Your task to perform on an android device: Set the phone to "Do not disturb". Image 0: 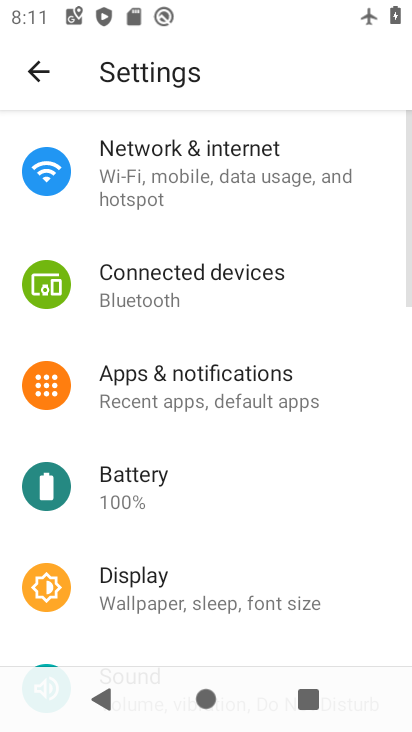
Step 0: press home button
Your task to perform on an android device: Set the phone to "Do not disturb". Image 1: 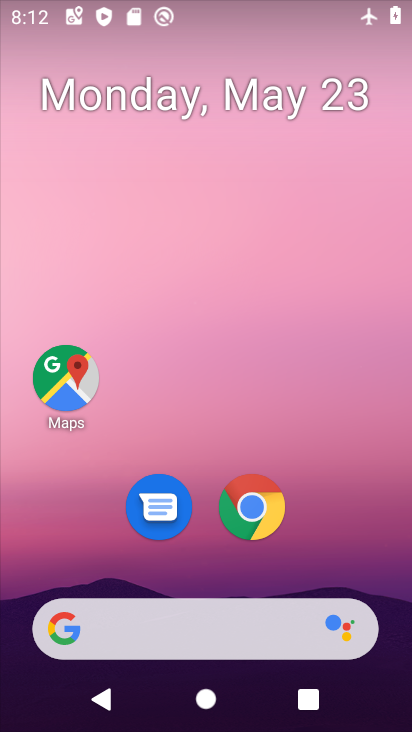
Step 1: drag from (377, 502) to (326, 203)
Your task to perform on an android device: Set the phone to "Do not disturb". Image 2: 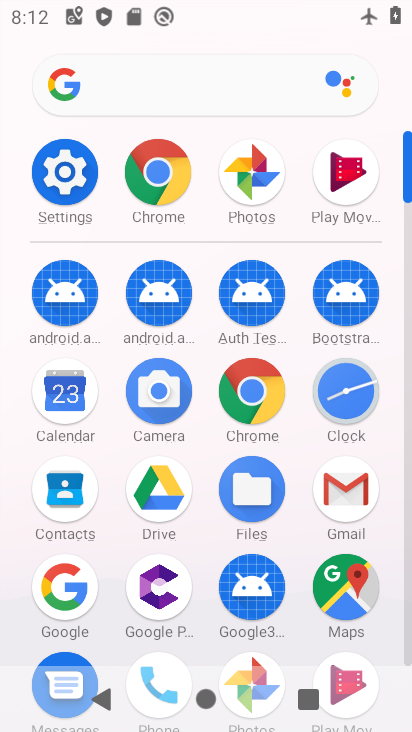
Step 2: click (48, 178)
Your task to perform on an android device: Set the phone to "Do not disturb". Image 3: 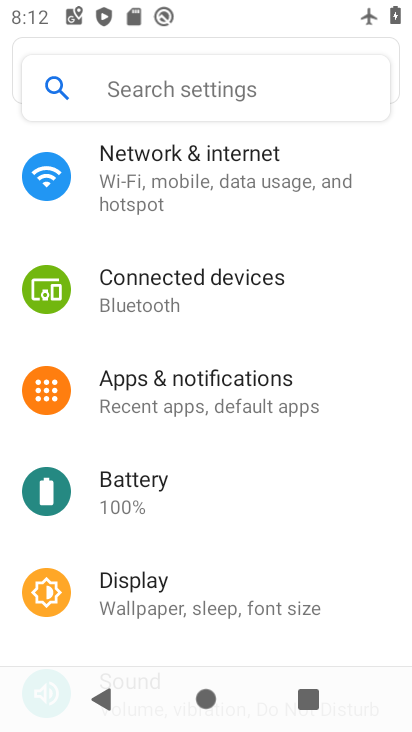
Step 3: drag from (232, 477) to (247, 195)
Your task to perform on an android device: Set the phone to "Do not disturb". Image 4: 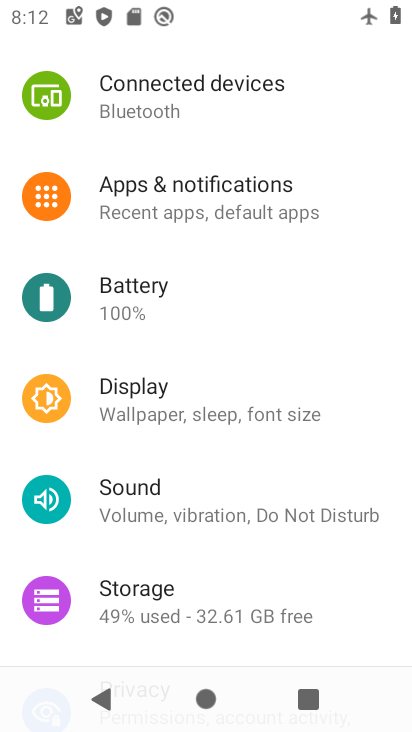
Step 4: click (257, 536)
Your task to perform on an android device: Set the phone to "Do not disturb". Image 5: 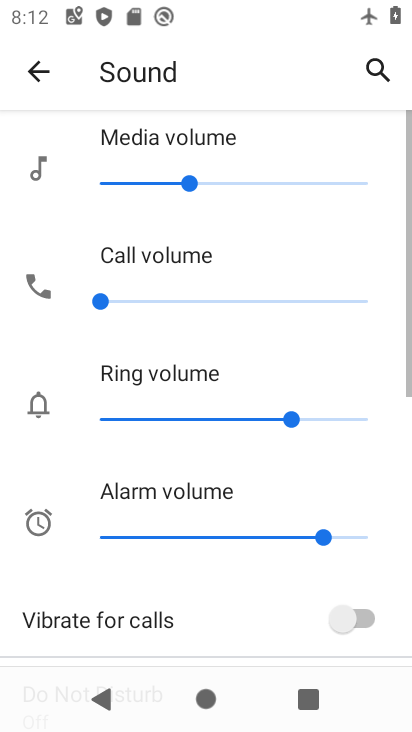
Step 5: drag from (239, 581) to (224, 229)
Your task to perform on an android device: Set the phone to "Do not disturb". Image 6: 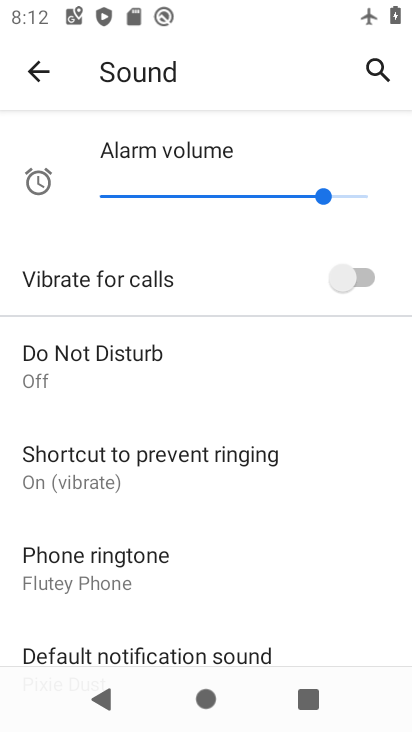
Step 6: click (102, 363)
Your task to perform on an android device: Set the phone to "Do not disturb". Image 7: 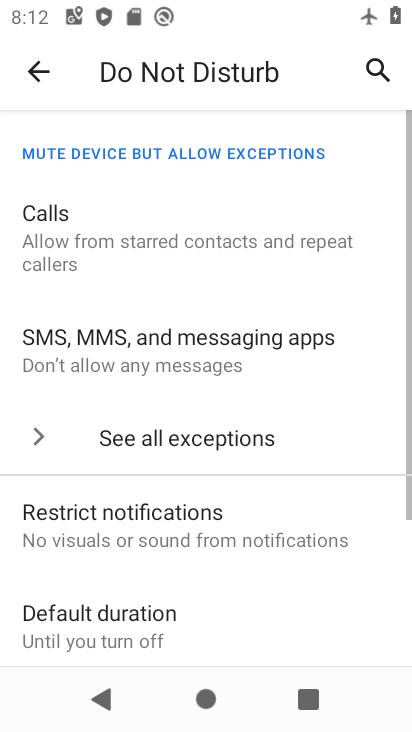
Step 7: drag from (195, 647) to (243, 254)
Your task to perform on an android device: Set the phone to "Do not disturb". Image 8: 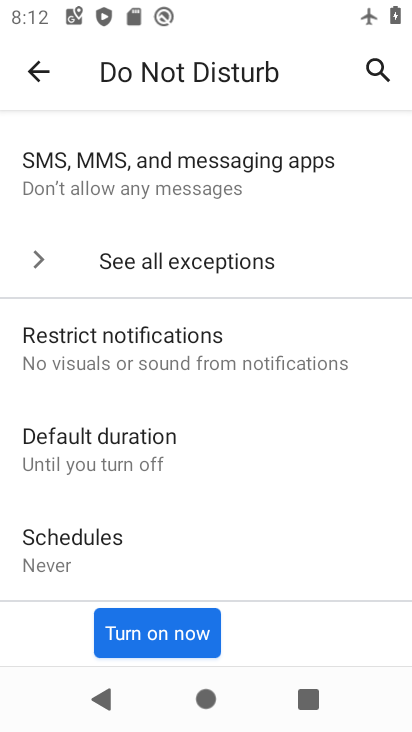
Step 8: click (196, 625)
Your task to perform on an android device: Set the phone to "Do not disturb". Image 9: 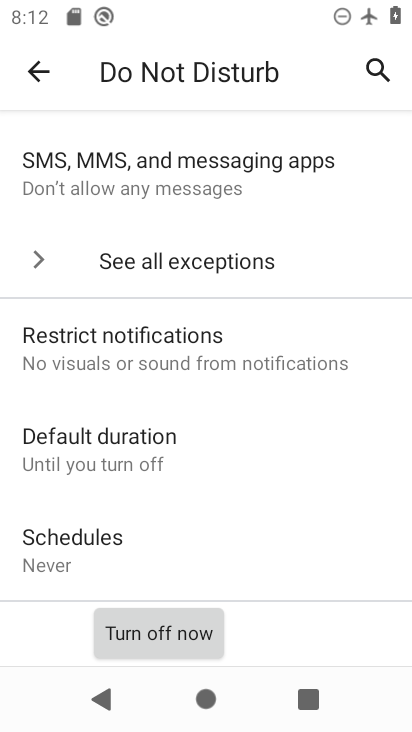
Step 9: task complete